Your task to perform on an android device: read, delete, or share a saved page in the chrome app Image 0: 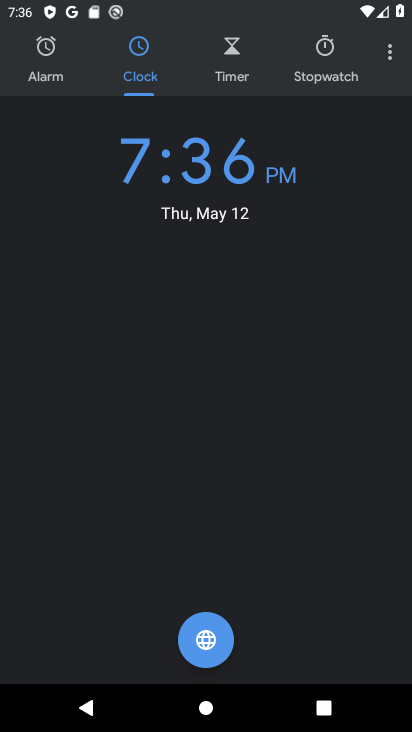
Step 0: press home button
Your task to perform on an android device: read, delete, or share a saved page in the chrome app Image 1: 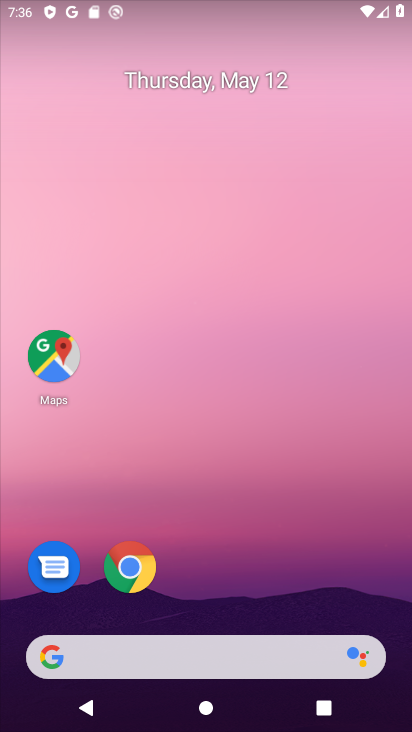
Step 1: drag from (290, 607) to (302, 81)
Your task to perform on an android device: read, delete, or share a saved page in the chrome app Image 2: 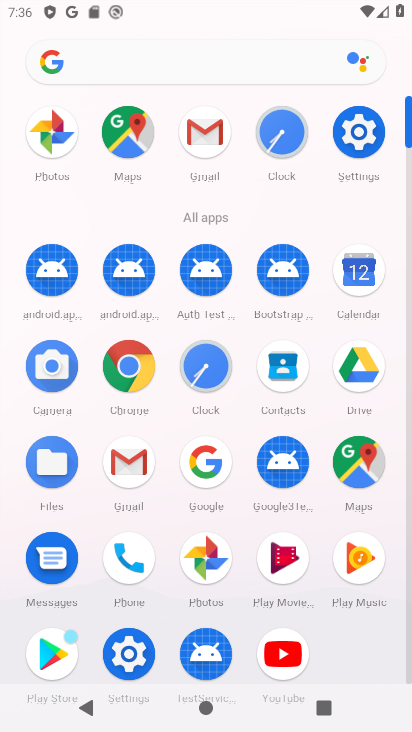
Step 2: click (127, 380)
Your task to perform on an android device: read, delete, or share a saved page in the chrome app Image 3: 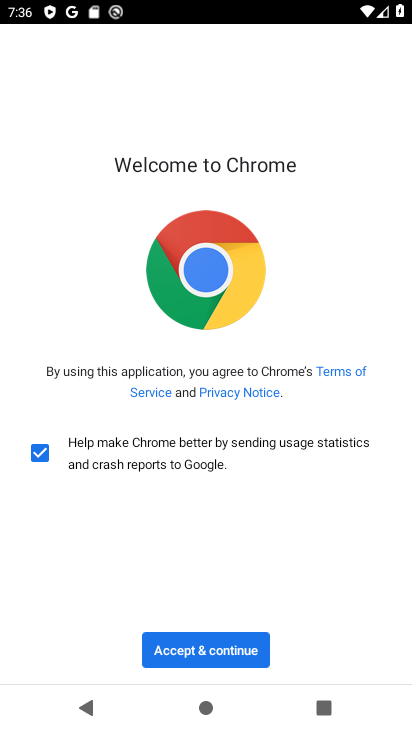
Step 3: click (187, 660)
Your task to perform on an android device: read, delete, or share a saved page in the chrome app Image 4: 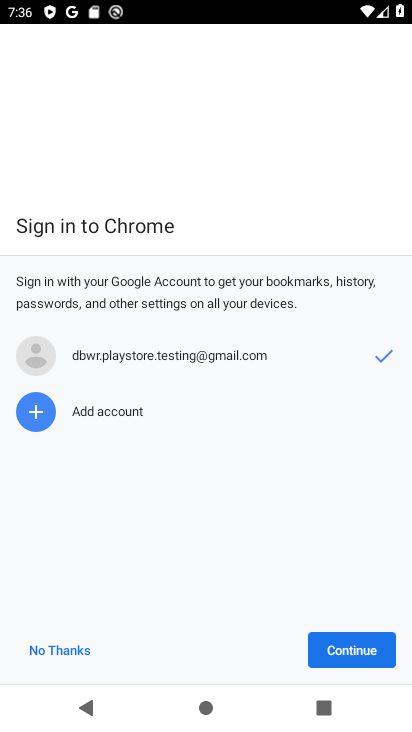
Step 4: click (358, 653)
Your task to perform on an android device: read, delete, or share a saved page in the chrome app Image 5: 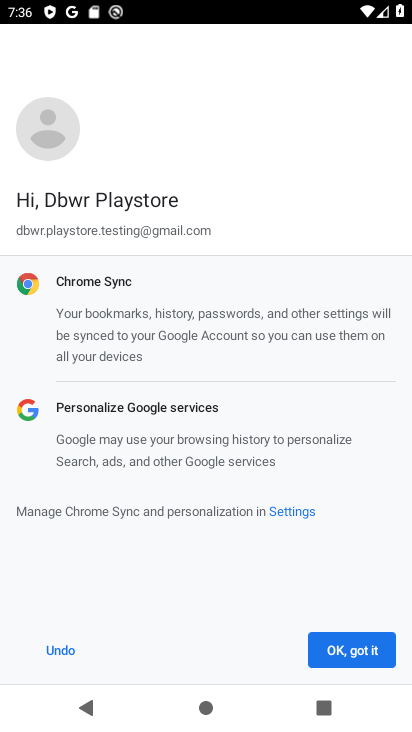
Step 5: click (347, 658)
Your task to perform on an android device: read, delete, or share a saved page in the chrome app Image 6: 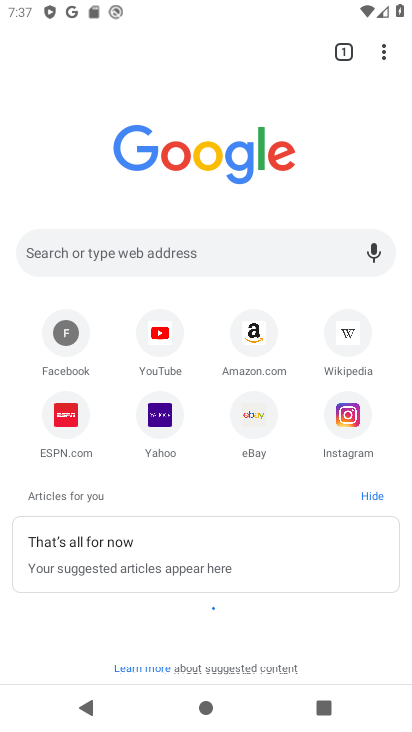
Step 6: click (382, 62)
Your task to perform on an android device: read, delete, or share a saved page in the chrome app Image 7: 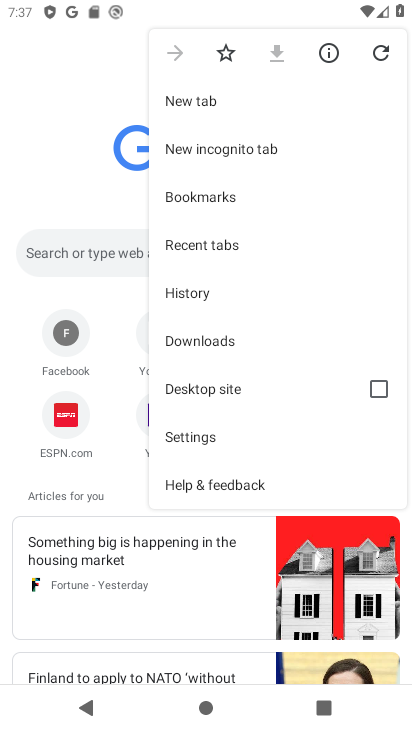
Step 7: click (213, 353)
Your task to perform on an android device: read, delete, or share a saved page in the chrome app Image 8: 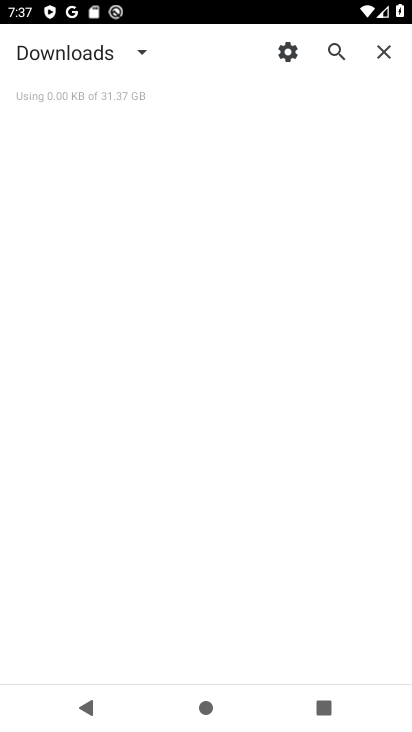
Step 8: click (131, 51)
Your task to perform on an android device: read, delete, or share a saved page in the chrome app Image 9: 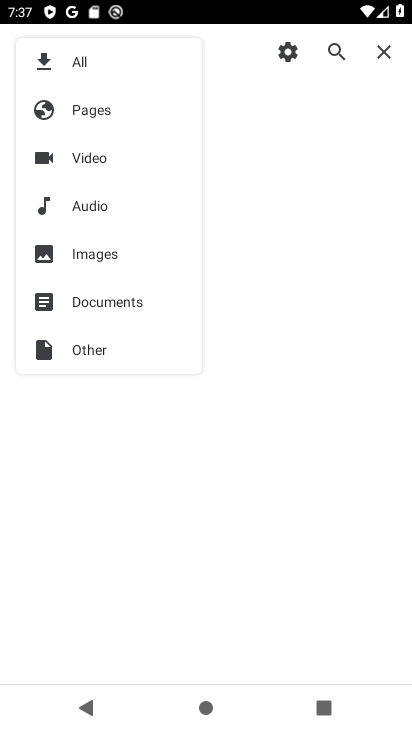
Step 9: click (89, 115)
Your task to perform on an android device: read, delete, or share a saved page in the chrome app Image 10: 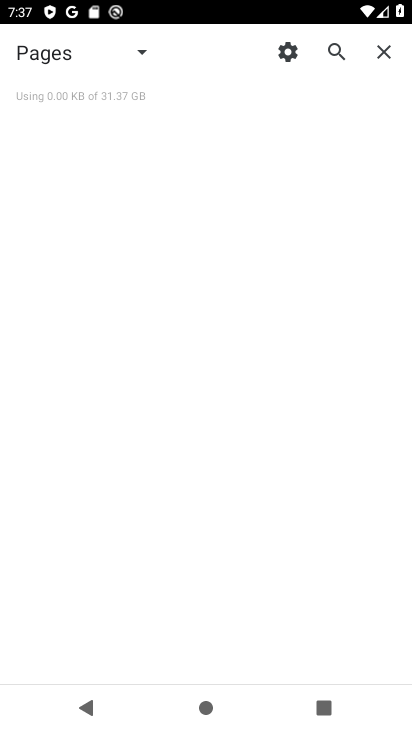
Step 10: task complete